Your task to perform on an android device: See recent photos Image 0: 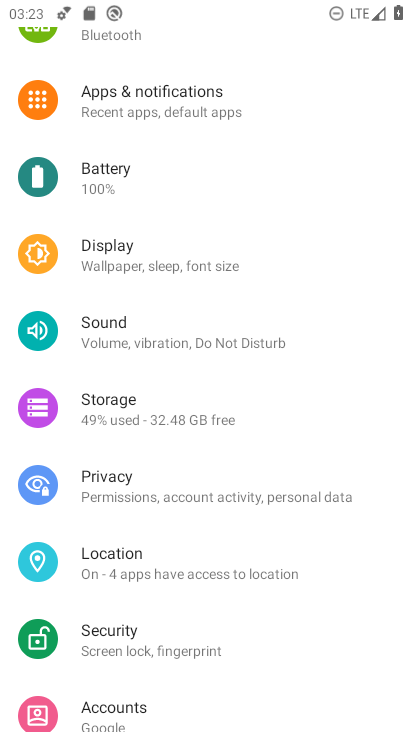
Step 0: press home button
Your task to perform on an android device: See recent photos Image 1: 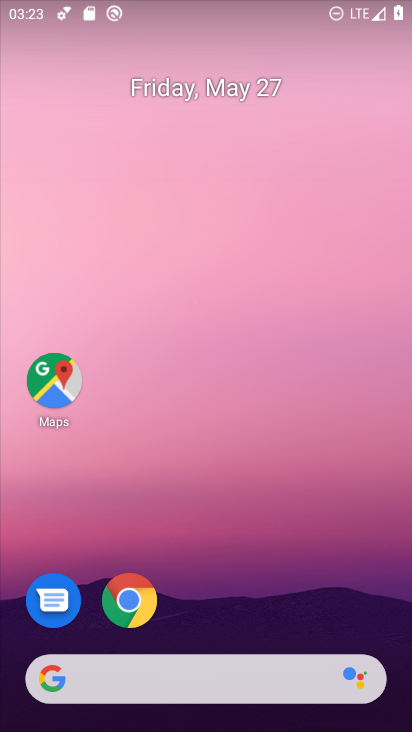
Step 1: drag from (212, 727) to (200, 21)
Your task to perform on an android device: See recent photos Image 2: 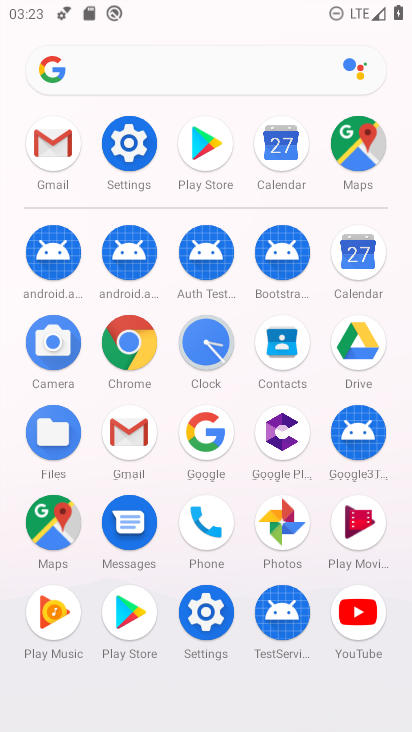
Step 2: click (279, 528)
Your task to perform on an android device: See recent photos Image 3: 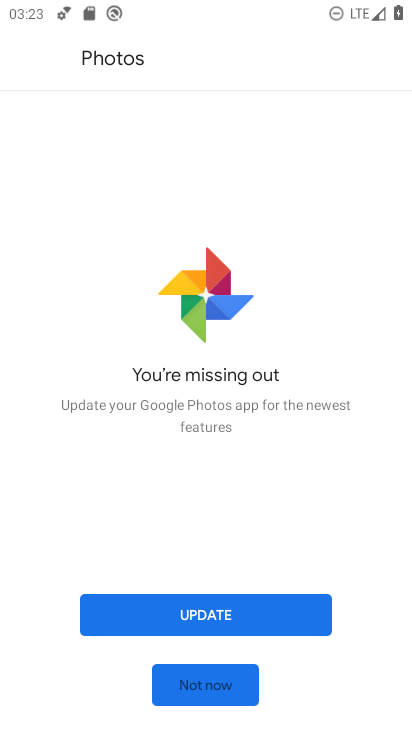
Step 3: click (216, 691)
Your task to perform on an android device: See recent photos Image 4: 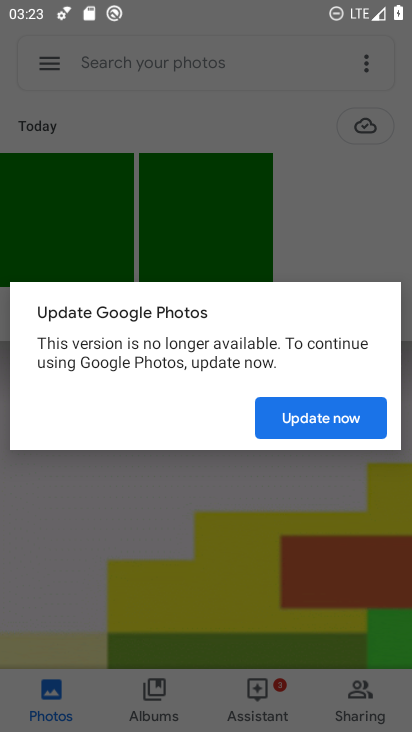
Step 4: click (295, 416)
Your task to perform on an android device: See recent photos Image 5: 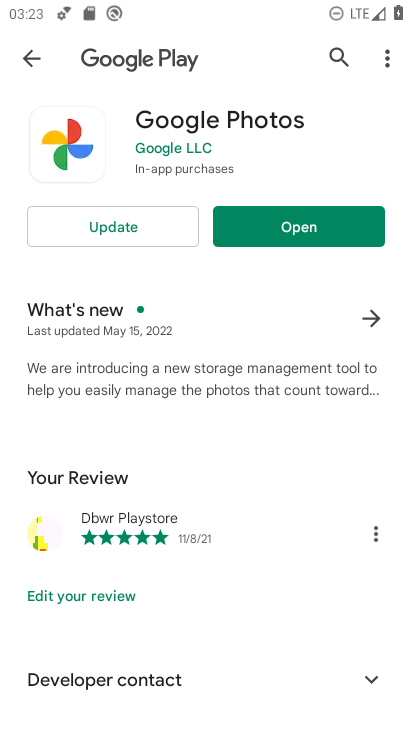
Step 5: click (152, 218)
Your task to perform on an android device: See recent photos Image 6: 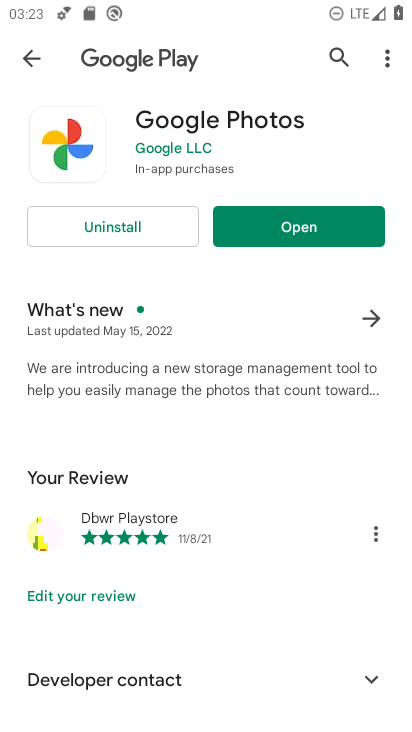
Step 6: click (314, 228)
Your task to perform on an android device: See recent photos Image 7: 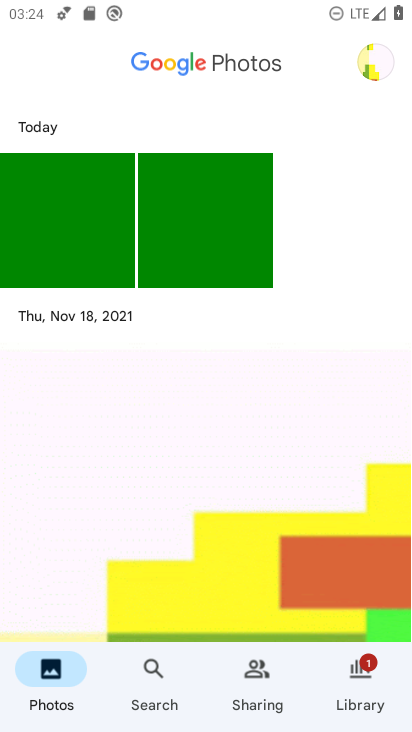
Step 7: click (76, 227)
Your task to perform on an android device: See recent photos Image 8: 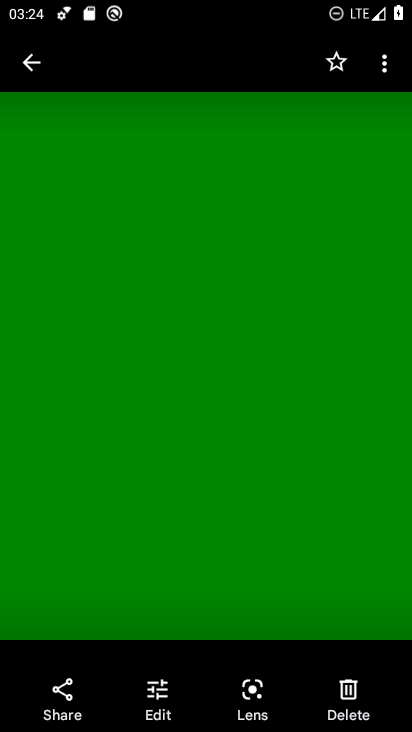
Step 8: task complete